Your task to perform on an android device: Go to Amazon Image 0: 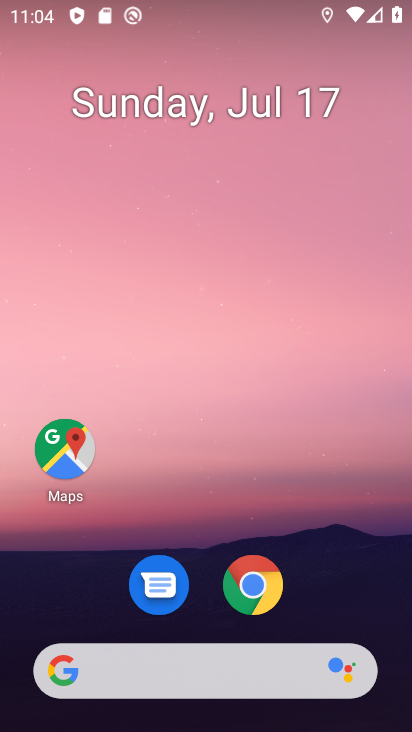
Step 0: click (258, 588)
Your task to perform on an android device: Go to Amazon Image 1: 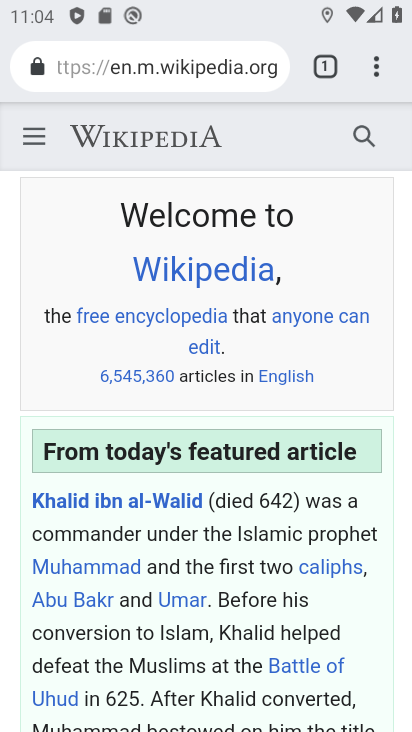
Step 1: click (373, 73)
Your task to perform on an android device: Go to Amazon Image 2: 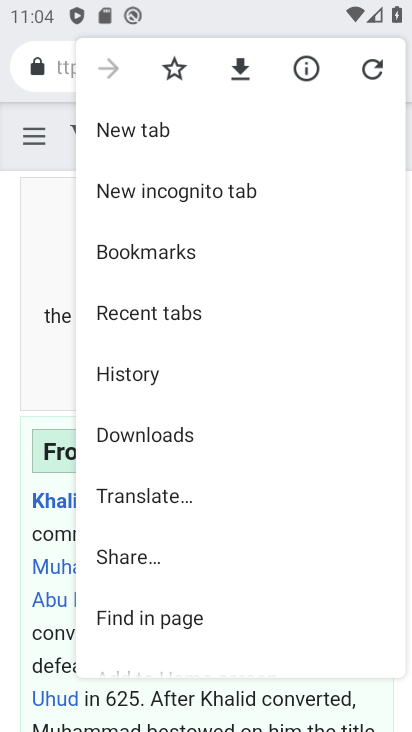
Step 2: drag from (147, 565) to (182, 313)
Your task to perform on an android device: Go to Amazon Image 3: 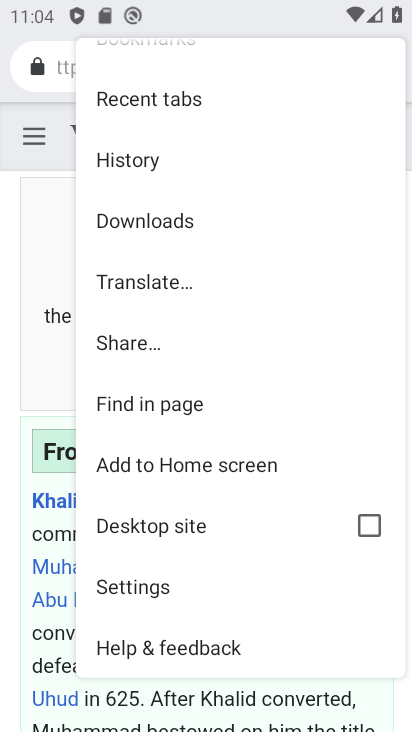
Step 3: click (146, 587)
Your task to perform on an android device: Go to Amazon Image 4: 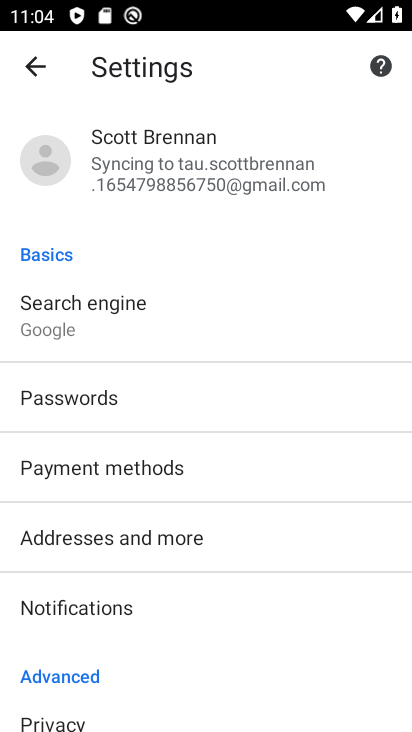
Step 4: click (33, 57)
Your task to perform on an android device: Go to Amazon Image 5: 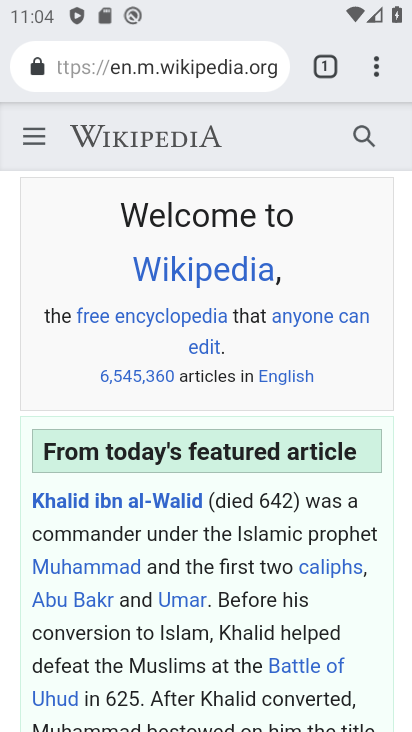
Step 5: click (368, 68)
Your task to perform on an android device: Go to Amazon Image 6: 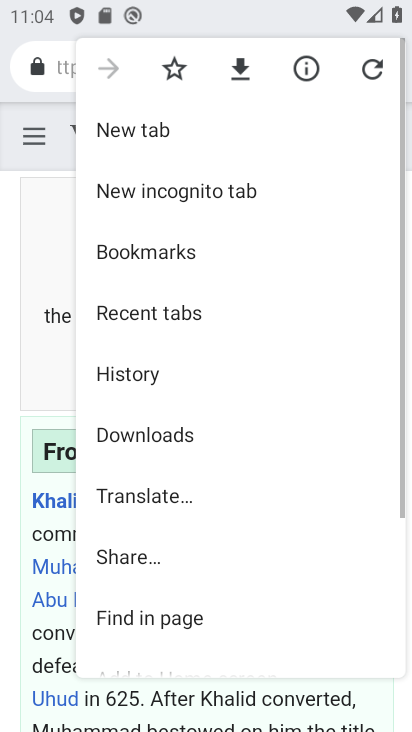
Step 6: click (254, 137)
Your task to perform on an android device: Go to Amazon Image 7: 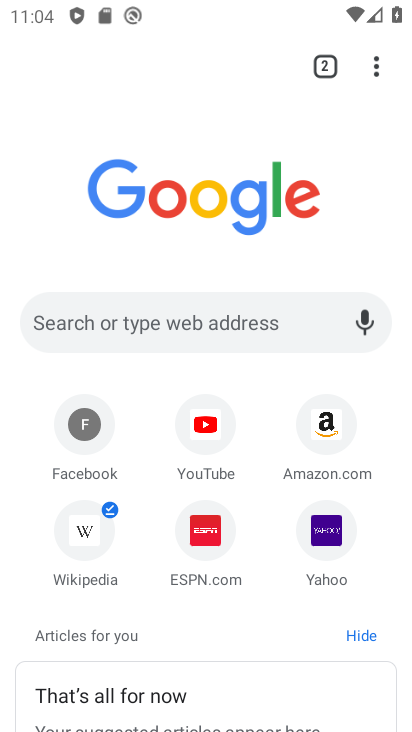
Step 7: click (302, 448)
Your task to perform on an android device: Go to Amazon Image 8: 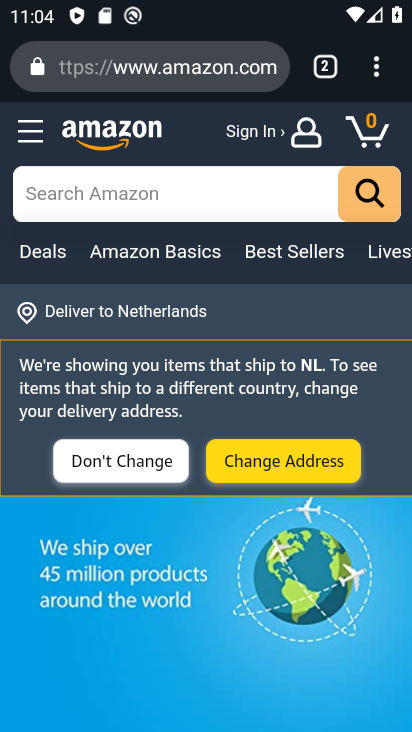
Step 8: task complete